Your task to perform on an android device: see creations saved in the google photos Image 0: 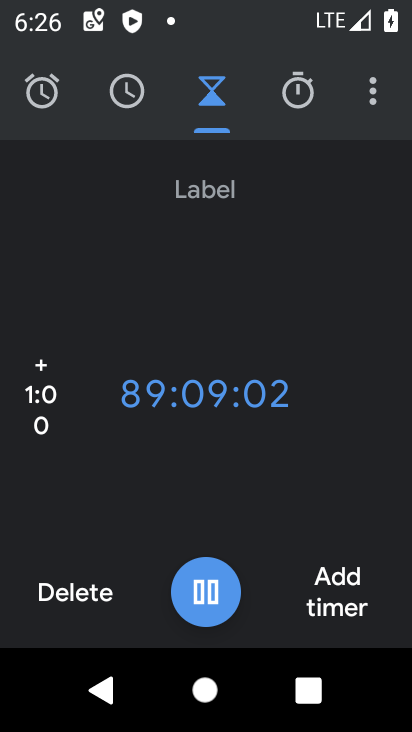
Step 0: press home button
Your task to perform on an android device: see creations saved in the google photos Image 1: 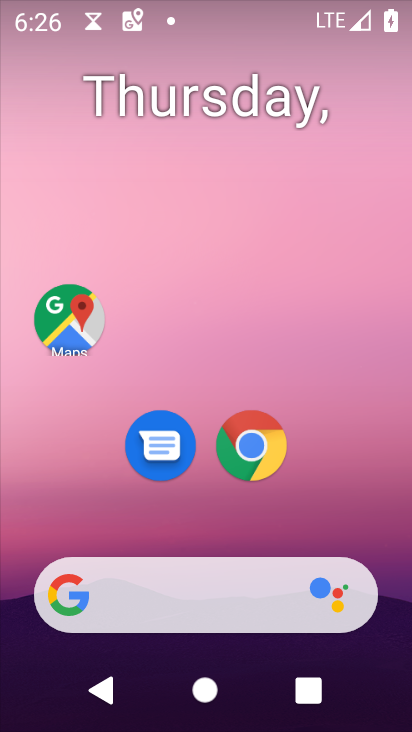
Step 1: drag from (329, 512) to (347, 102)
Your task to perform on an android device: see creations saved in the google photos Image 2: 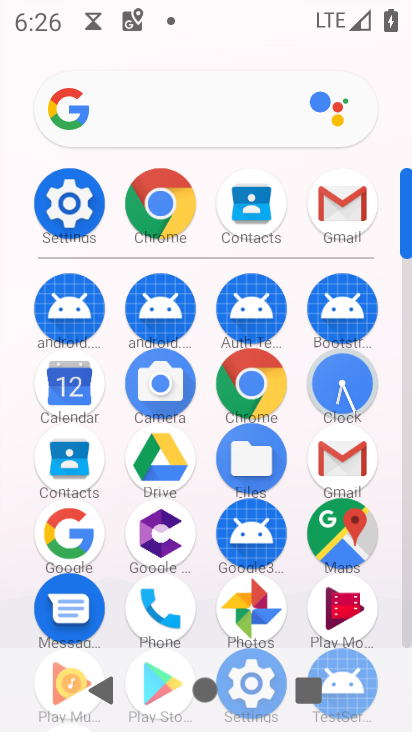
Step 2: drag from (293, 278) to (307, 71)
Your task to perform on an android device: see creations saved in the google photos Image 3: 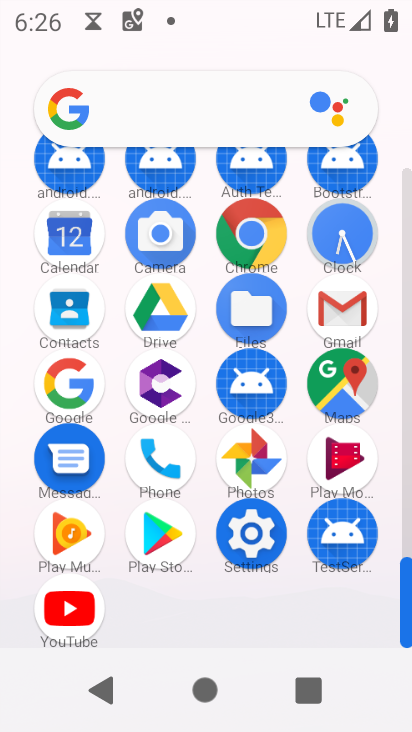
Step 3: click (260, 454)
Your task to perform on an android device: see creations saved in the google photos Image 4: 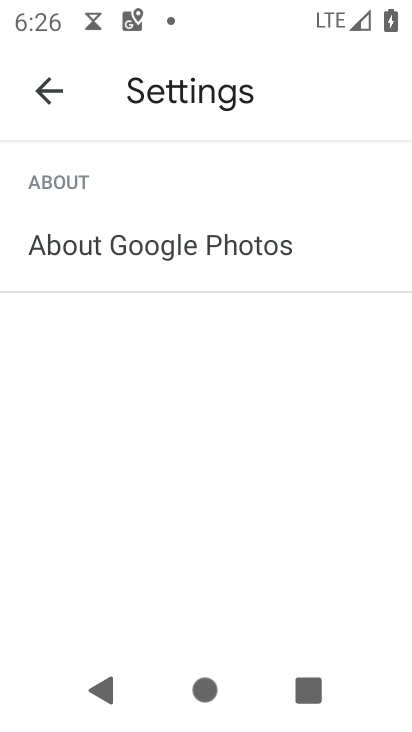
Step 4: click (42, 87)
Your task to perform on an android device: see creations saved in the google photos Image 5: 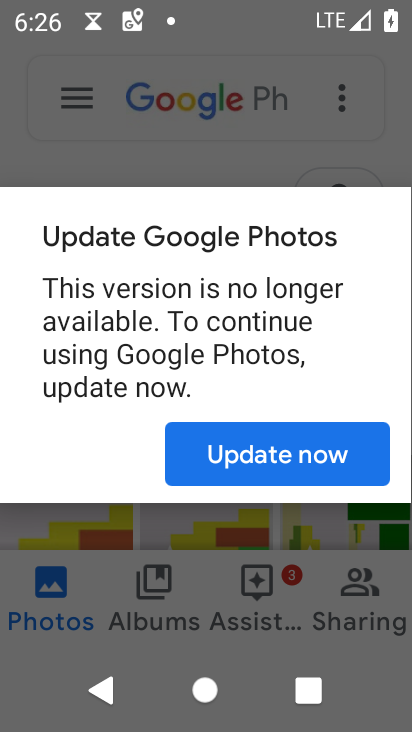
Step 5: click (251, 451)
Your task to perform on an android device: see creations saved in the google photos Image 6: 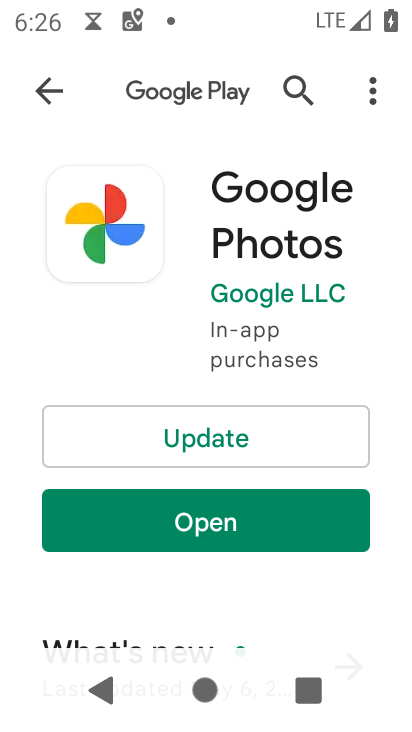
Step 6: click (198, 436)
Your task to perform on an android device: see creations saved in the google photos Image 7: 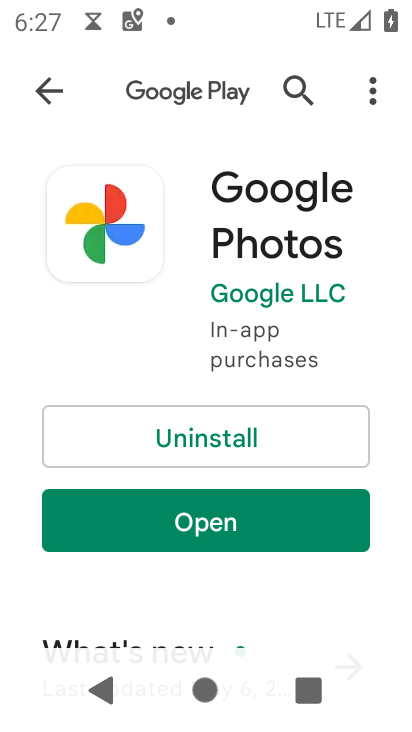
Step 7: click (176, 509)
Your task to perform on an android device: see creations saved in the google photos Image 8: 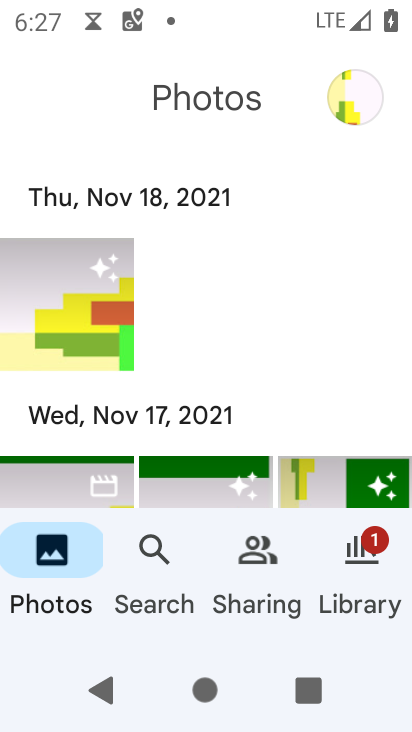
Step 8: click (349, 104)
Your task to perform on an android device: see creations saved in the google photos Image 9: 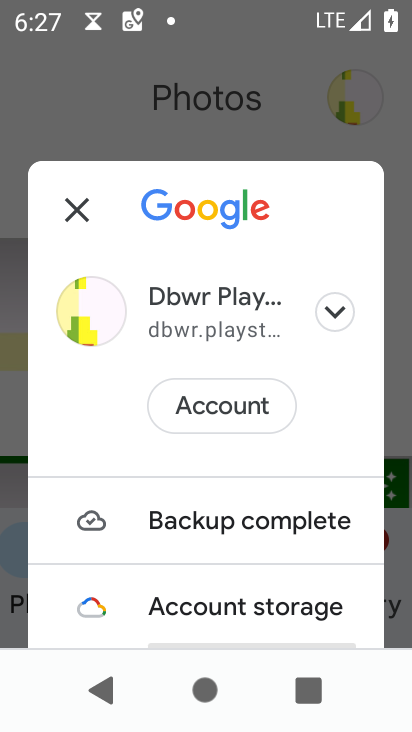
Step 9: click (75, 204)
Your task to perform on an android device: see creations saved in the google photos Image 10: 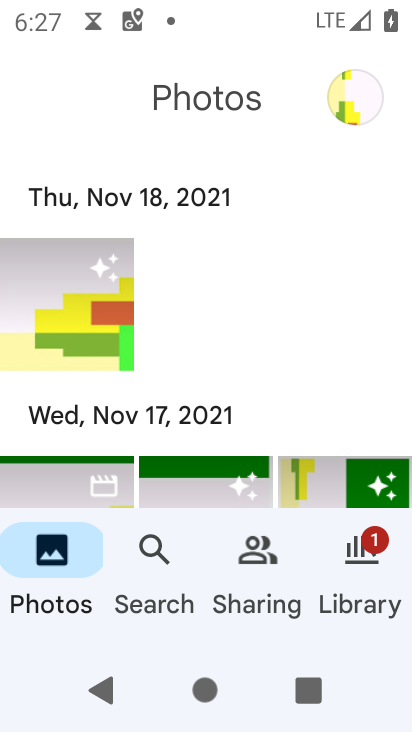
Step 10: click (152, 547)
Your task to perform on an android device: see creations saved in the google photos Image 11: 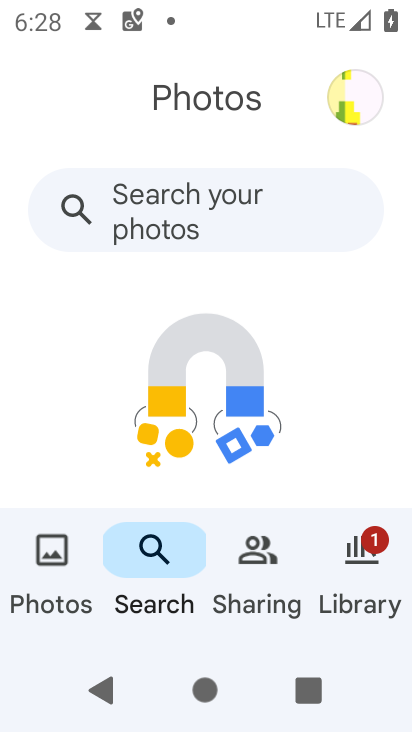
Step 11: click (108, 202)
Your task to perform on an android device: see creations saved in the google photos Image 12: 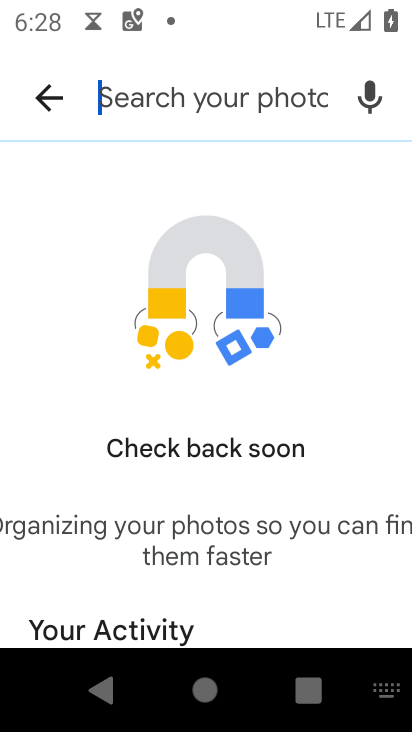
Step 12: task complete